Your task to perform on an android device: Go to notification settings Image 0: 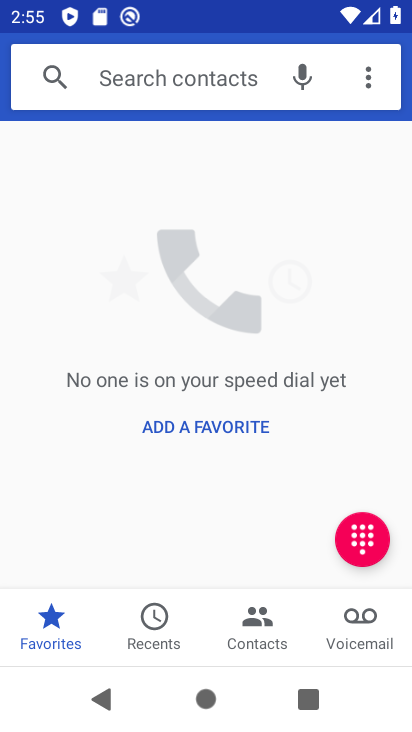
Step 0: press home button
Your task to perform on an android device: Go to notification settings Image 1: 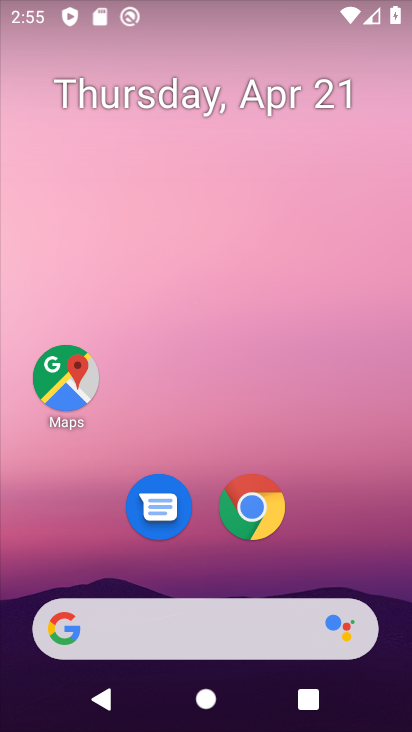
Step 1: drag from (290, 355) to (295, 102)
Your task to perform on an android device: Go to notification settings Image 2: 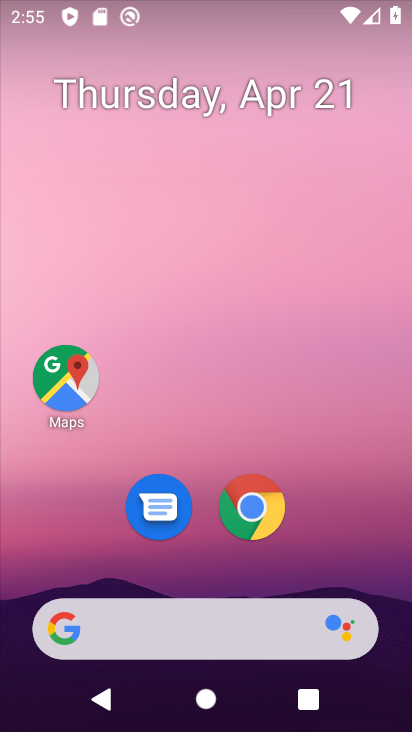
Step 2: drag from (308, 569) to (350, 74)
Your task to perform on an android device: Go to notification settings Image 3: 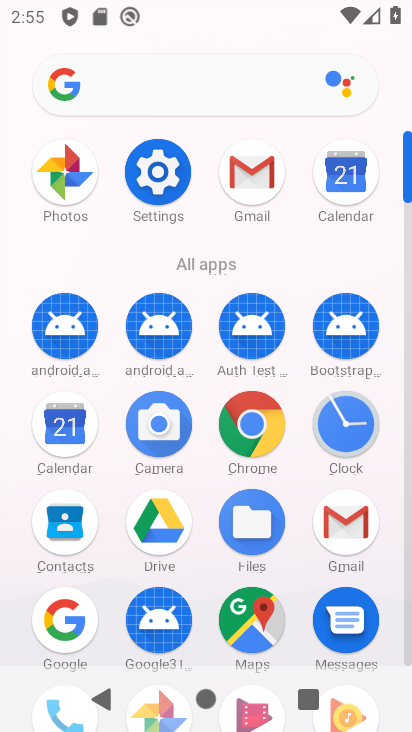
Step 3: click (160, 192)
Your task to perform on an android device: Go to notification settings Image 4: 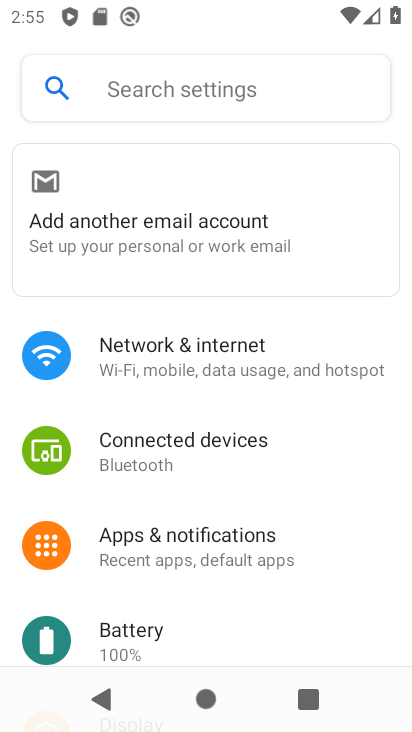
Step 4: click (215, 540)
Your task to perform on an android device: Go to notification settings Image 5: 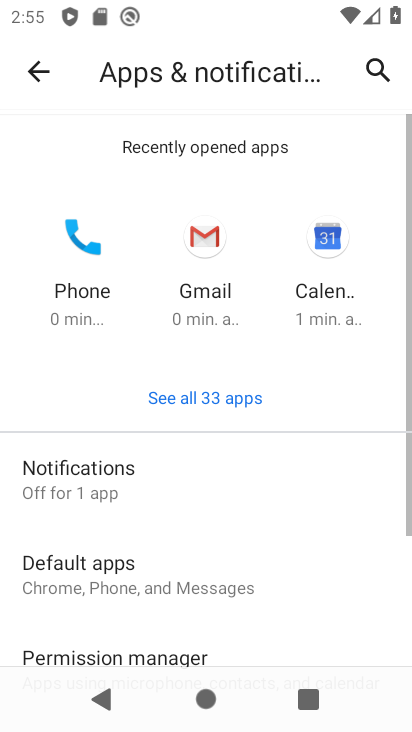
Step 5: click (125, 488)
Your task to perform on an android device: Go to notification settings Image 6: 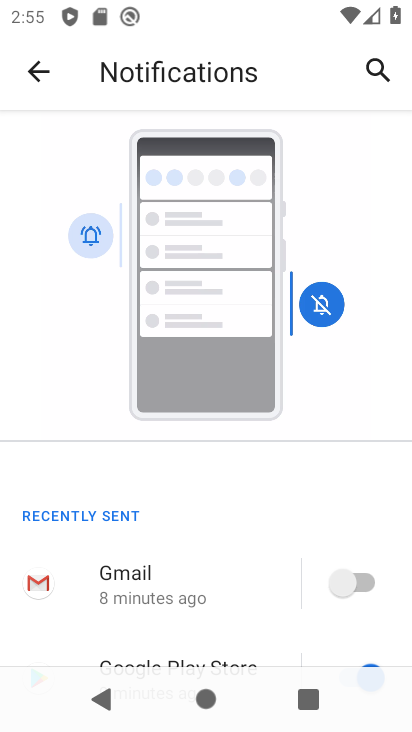
Step 6: task complete